Your task to perform on an android device: Go to location settings Image 0: 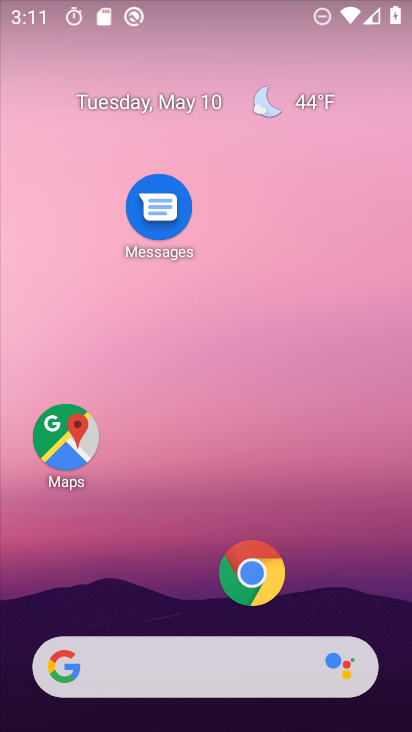
Step 0: drag from (191, 617) to (203, 152)
Your task to perform on an android device: Go to location settings Image 1: 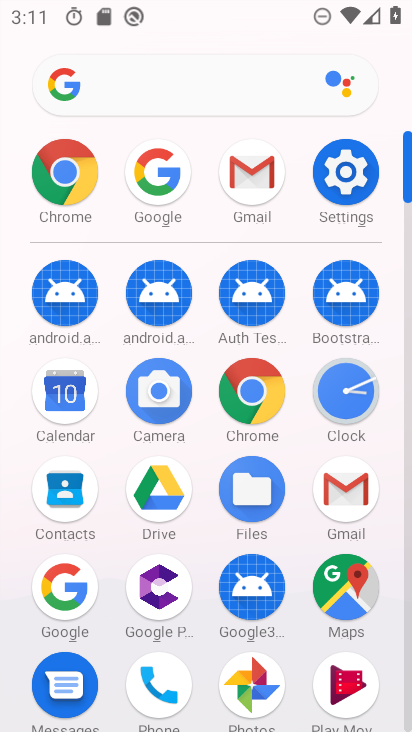
Step 1: click (316, 162)
Your task to perform on an android device: Go to location settings Image 2: 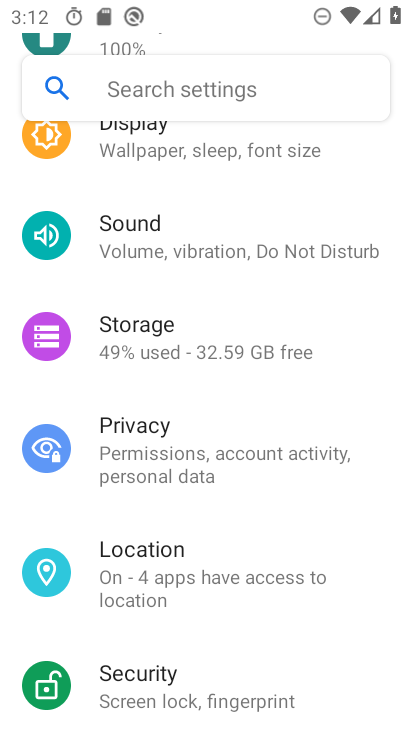
Step 2: click (252, 572)
Your task to perform on an android device: Go to location settings Image 3: 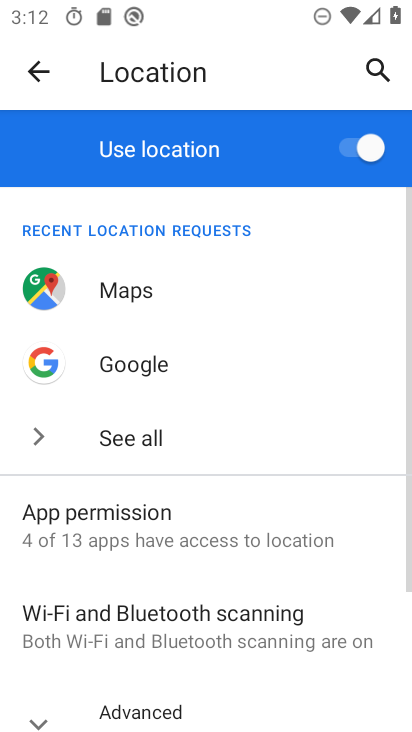
Step 3: task complete